Your task to perform on an android device: Open the calendar and show me this week's events? Image 0: 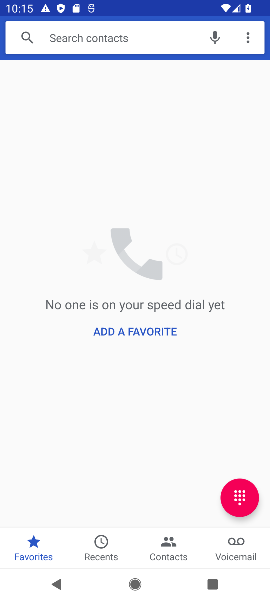
Step 0: press home button
Your task to perform on an android device: Open the calendar and show me this week's events? Image 1: 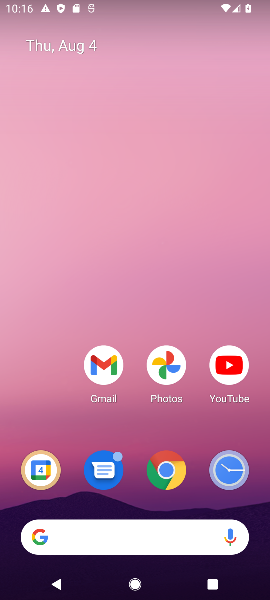
Step 1: click (44, 472)
Your task to perform on an android device: Open the calendar and show me this week's events? Image 2: 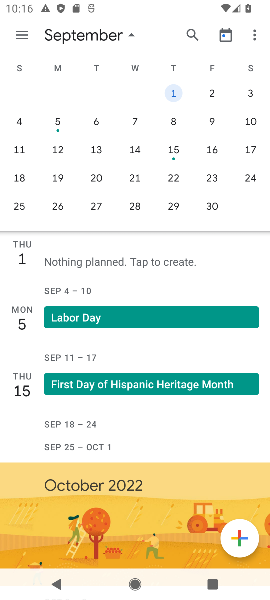
Step 2: drag from (41, 148) to (268, 56)
Your task to perform on an android device: Open the calendar and show me this week's events? Image 3: 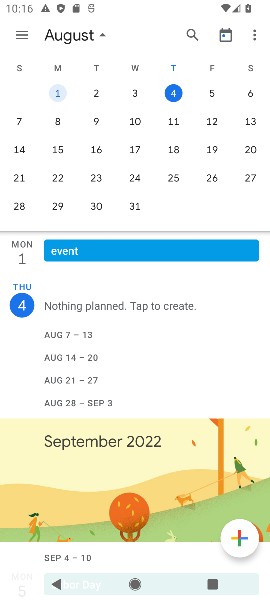
Step 3: click (184, 93)
Your task to perform on an android device: Open the calendar and show me this week's events? Image 4: 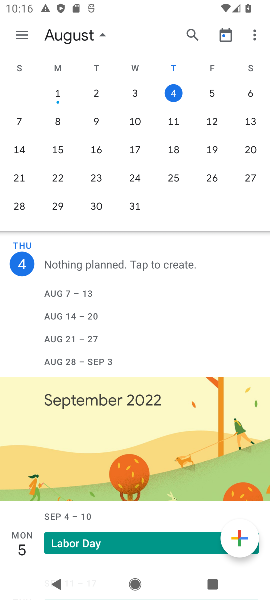
Step 4: click (210, 93)
Your task to perform on an android device: Open the calendar and show me this week's events? Image 5: 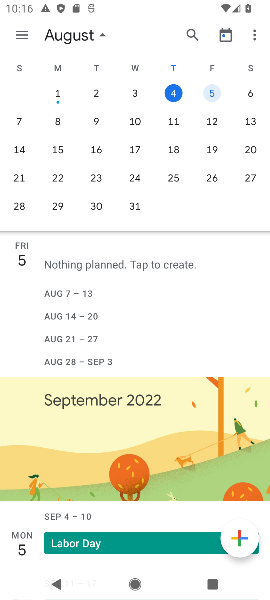
Step 5: click (250, 93)
Your task to perform on an android device: Open the calendar and show me this week's events? Image 6: 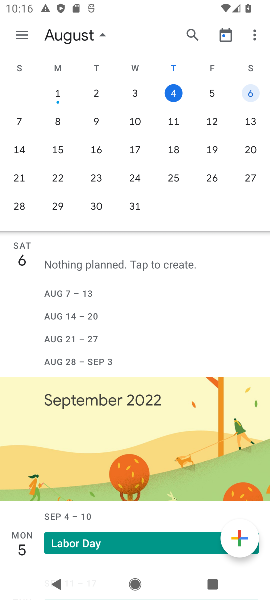
Step 6: task complete